Your task to perform on an android device: install app "Messenger Lite" Image 0: 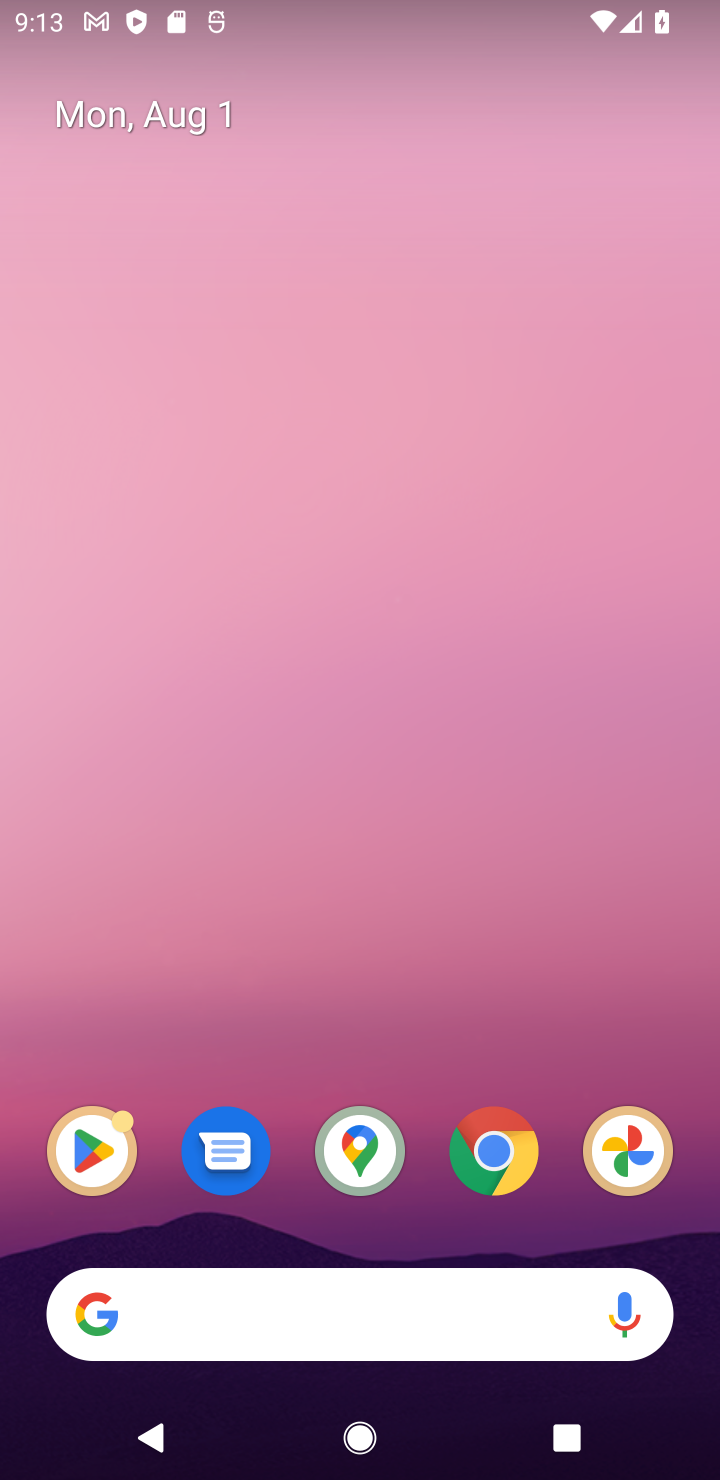
Step 0: drag from (383, 1386) to (302, 747)
Your task to perform on an android device: install app "Messenger Lite" Image 1: 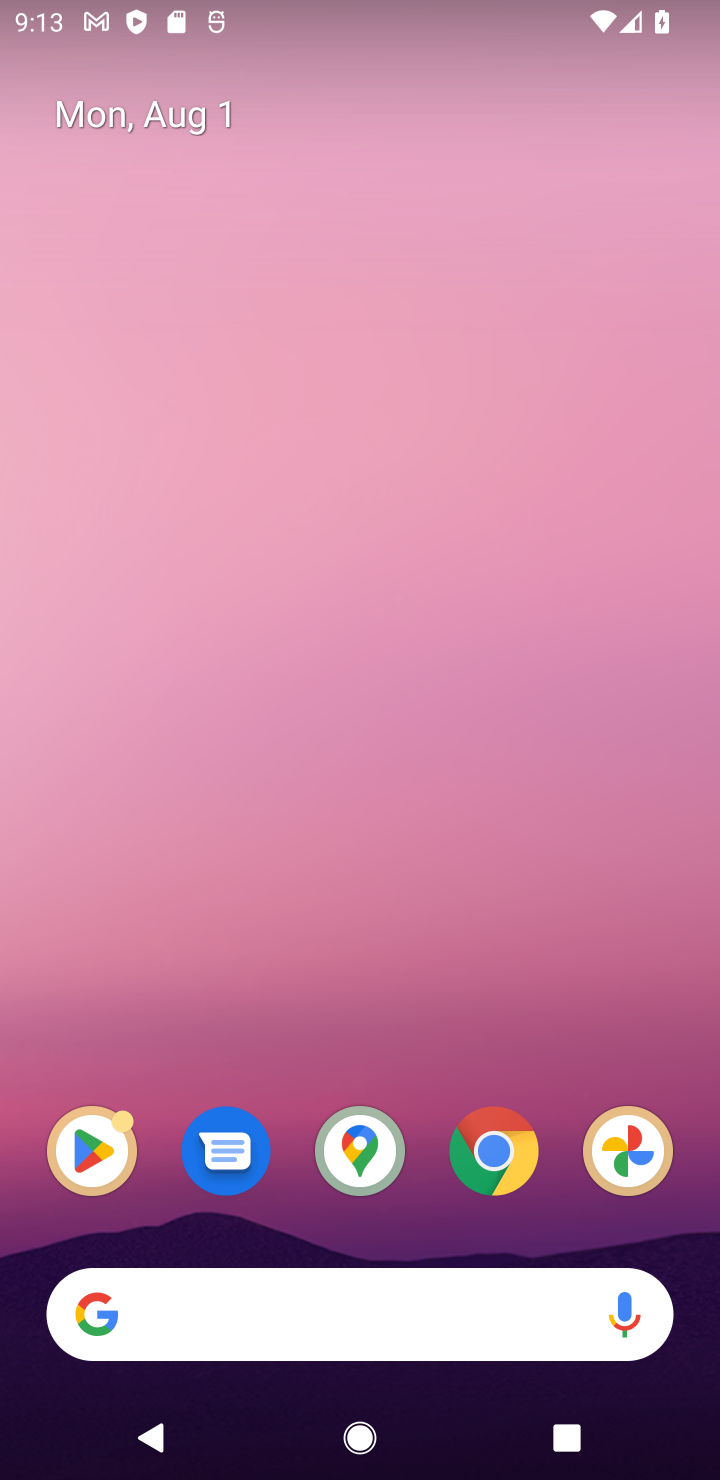
Step 1: drag from (469, 1091) to (385, 683)
Your task to perform on an android device: install app "Messenger Lite" Image 2: 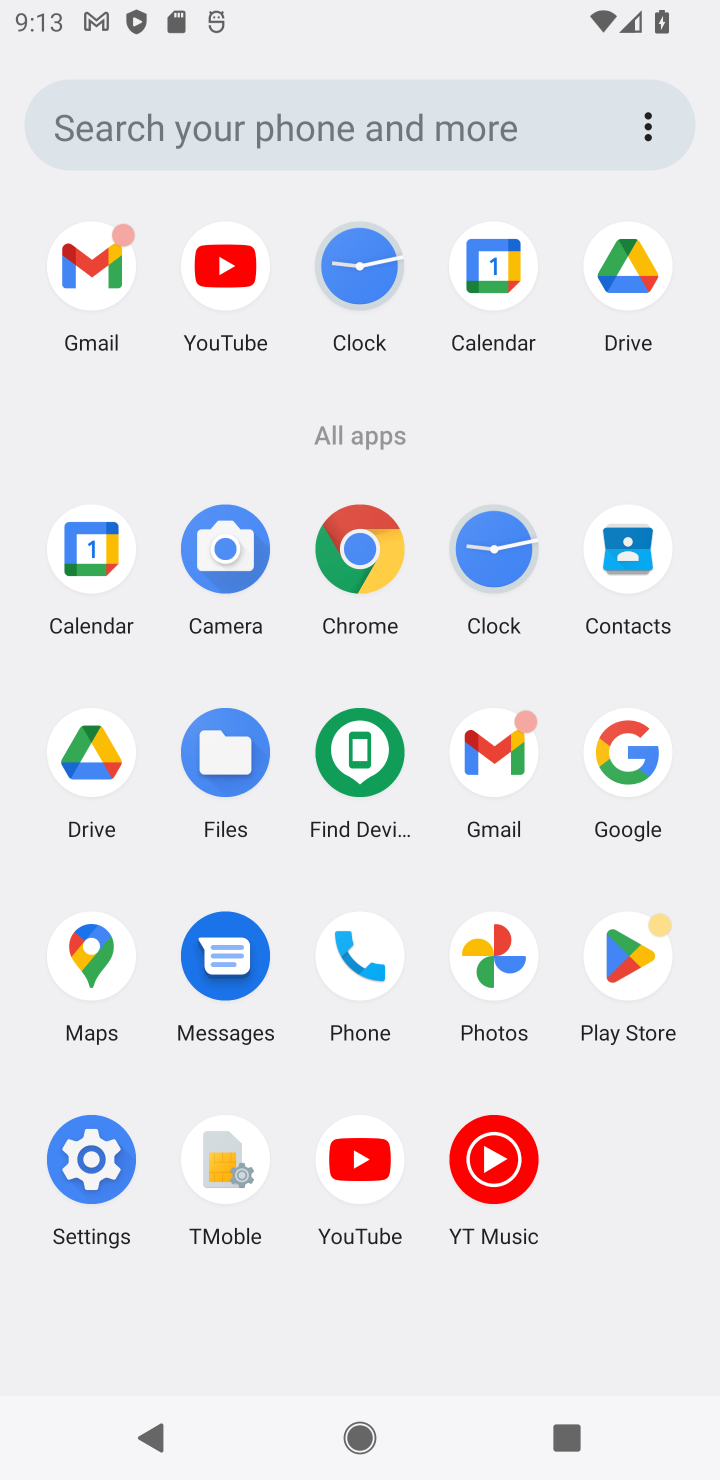
Step 2: click (627, 963)
Your task to perform on an android device: install app "Messenger Lite" Image 3: 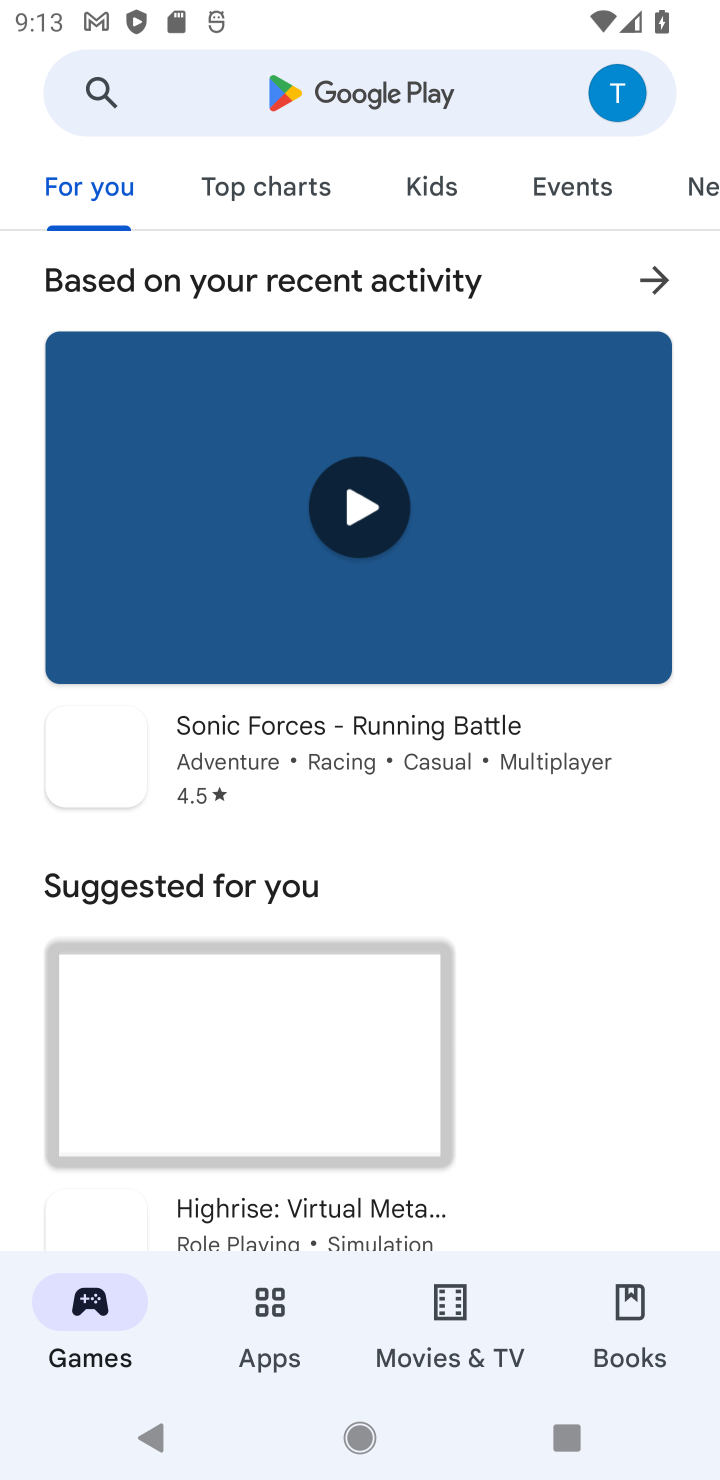
Step 3: click (308, 92)
Your task to perform on an android device: install app "Messenger Lite" Image 4: 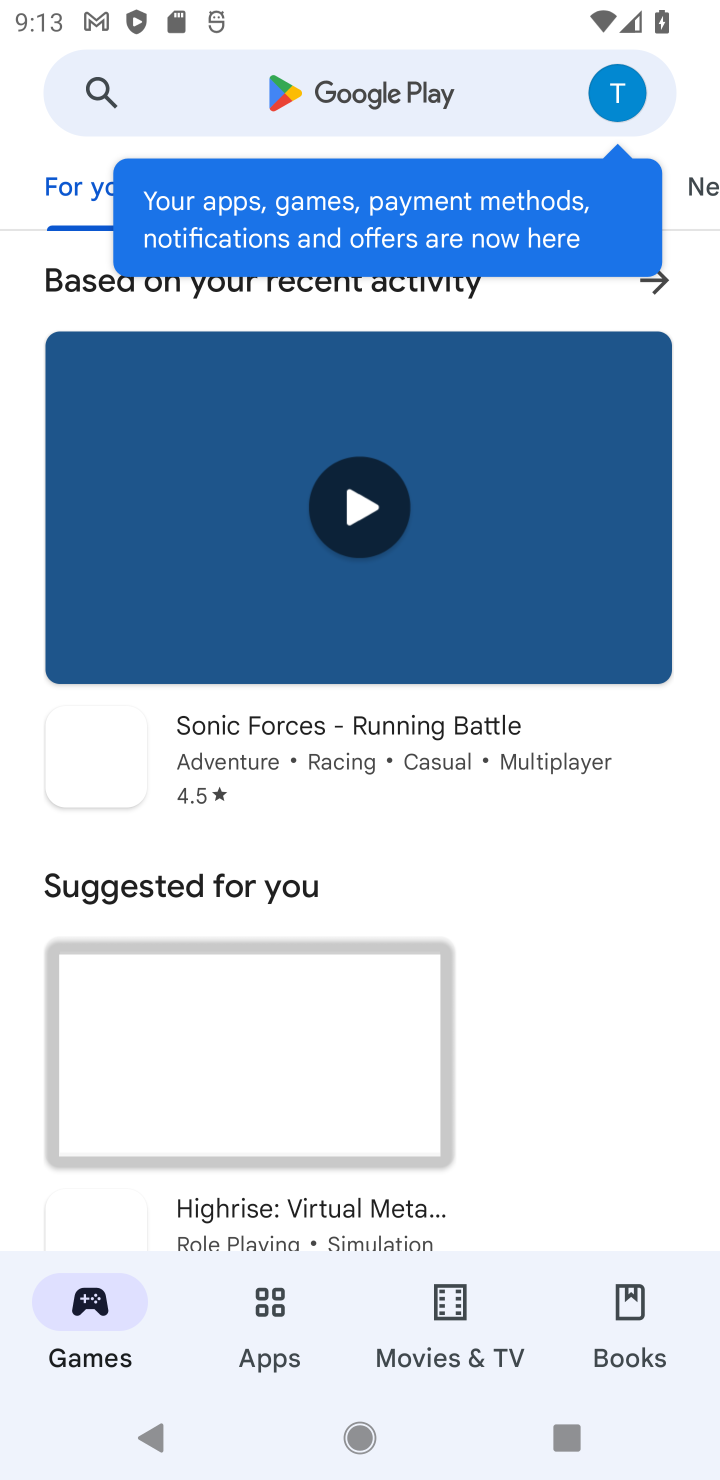
Step 4: click (336, 88)
Your task to perform on an android device: install app "Messenger Lite" Image 5: 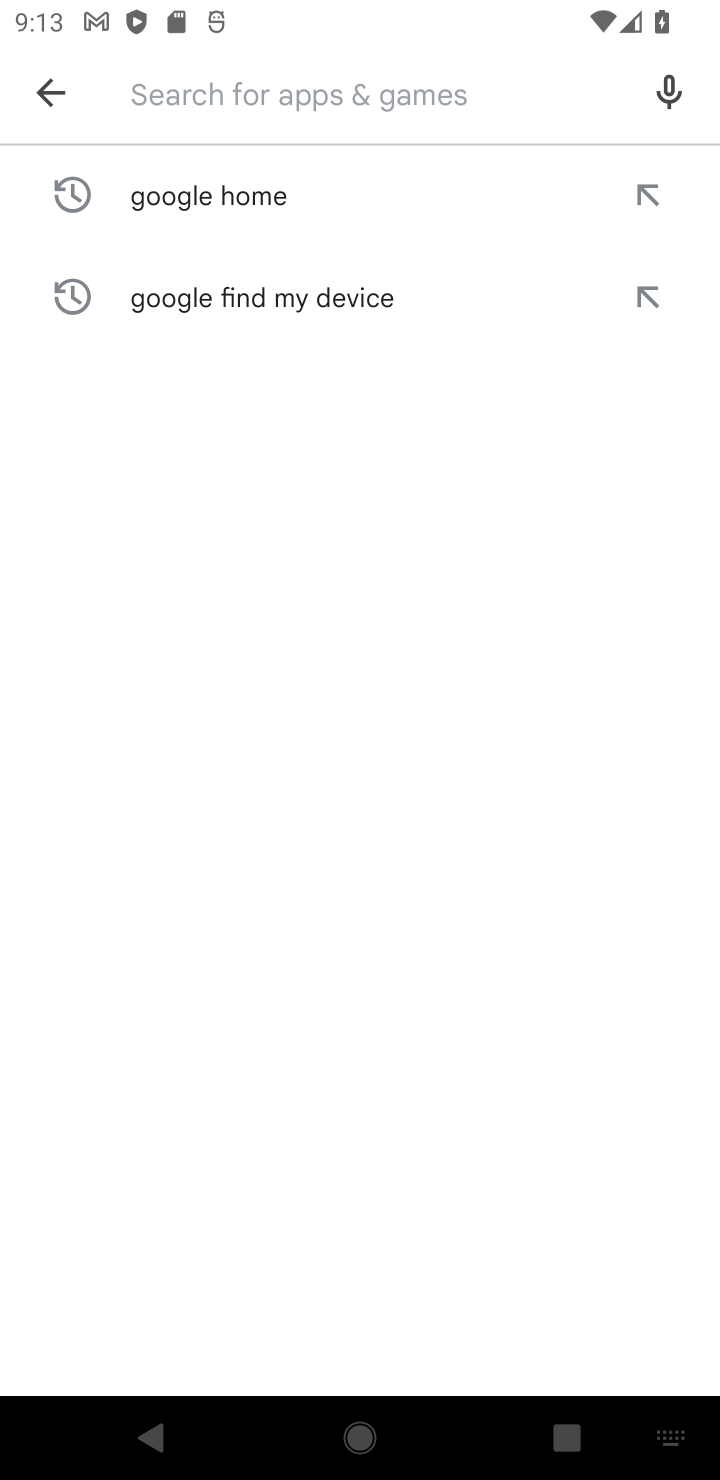
Step 5: type "messenger lite"
Your task to perform on an android device: install app "Messenger Lite" Image 6: 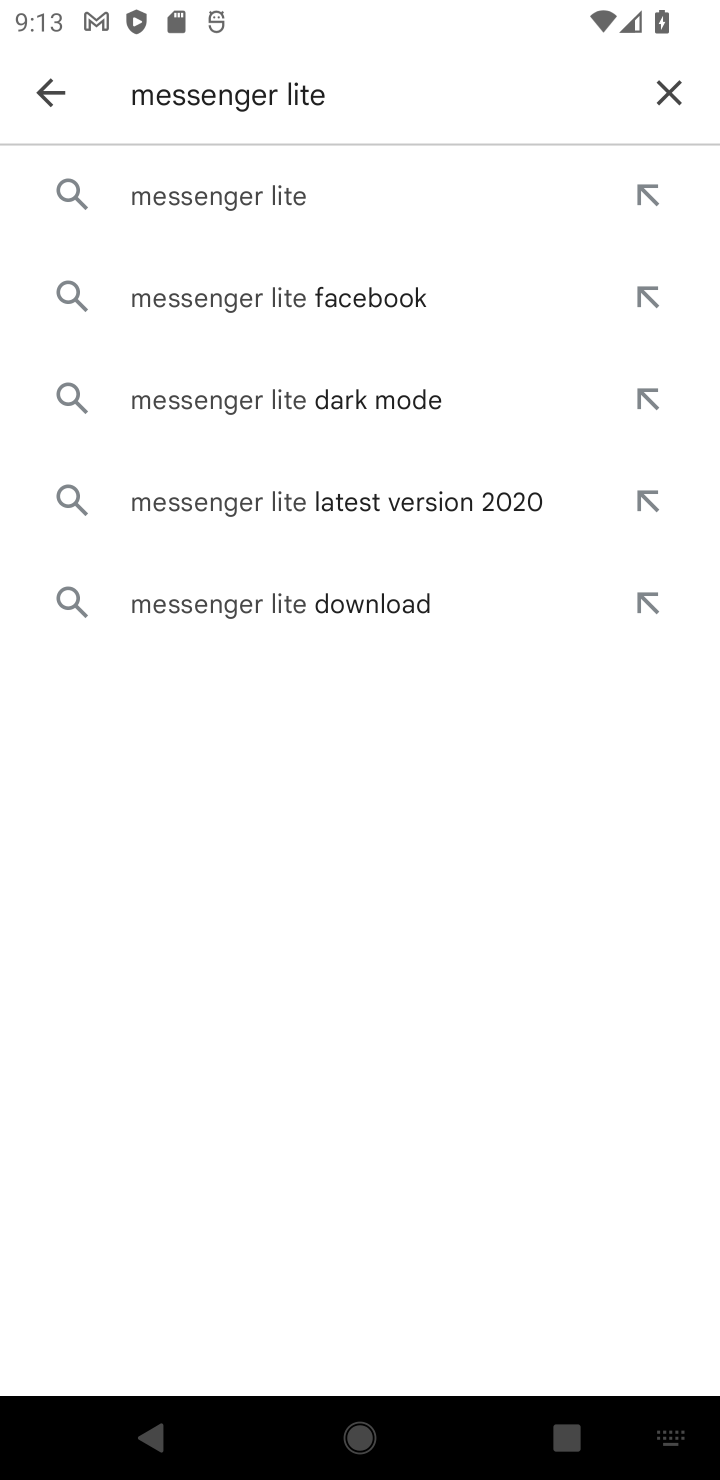
Step 6: click (265, 210)
Your task to perform on an android device: install app "Messenger Lite" Image 7: 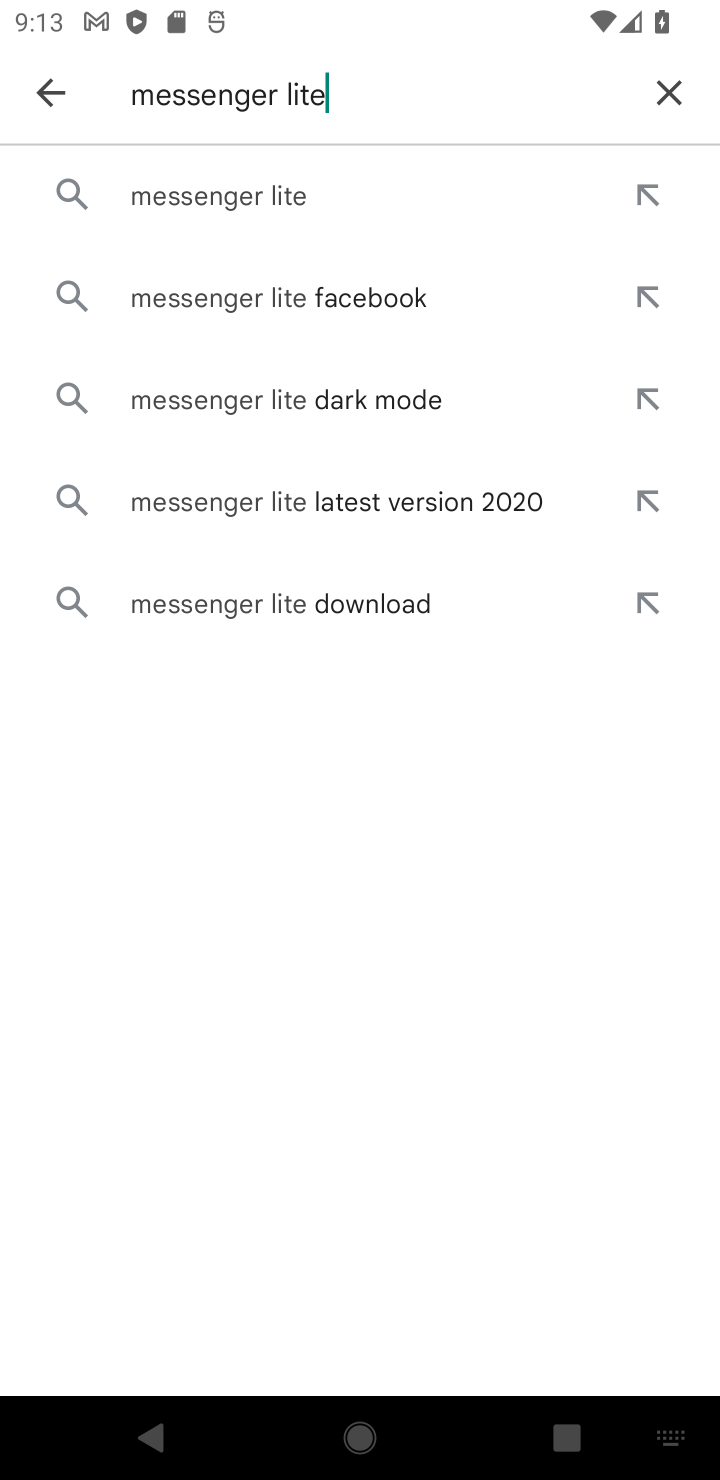
Step 7: click (260, 195)
Your task to perform on an android device: install app "Messenger Lite" Image 8: 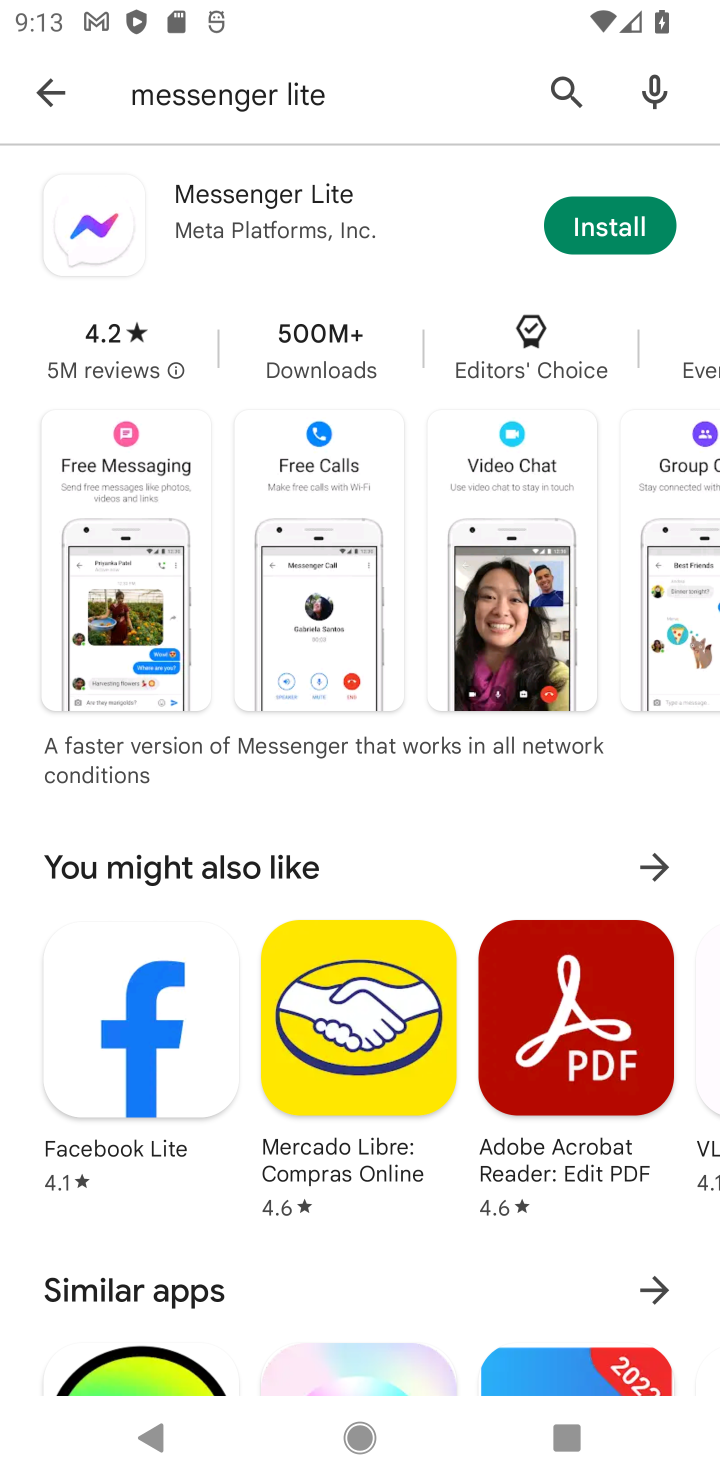
Step 8: click (580, 220)
Your task to perform on an android device: install app "Messenger Lite" Image 9: 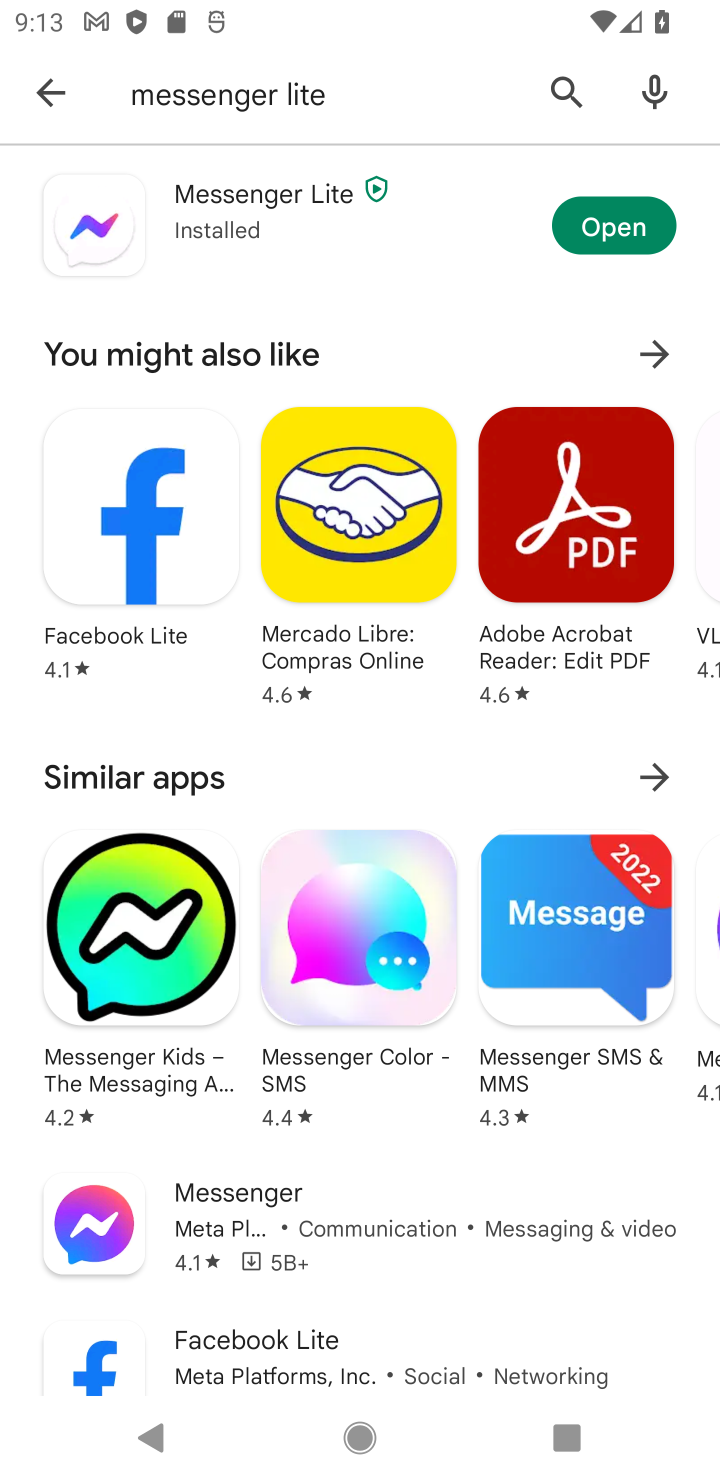
Step 9: click (617, 243)
Your task to perform on an android device: install app "Messenger Lite" Image 10: 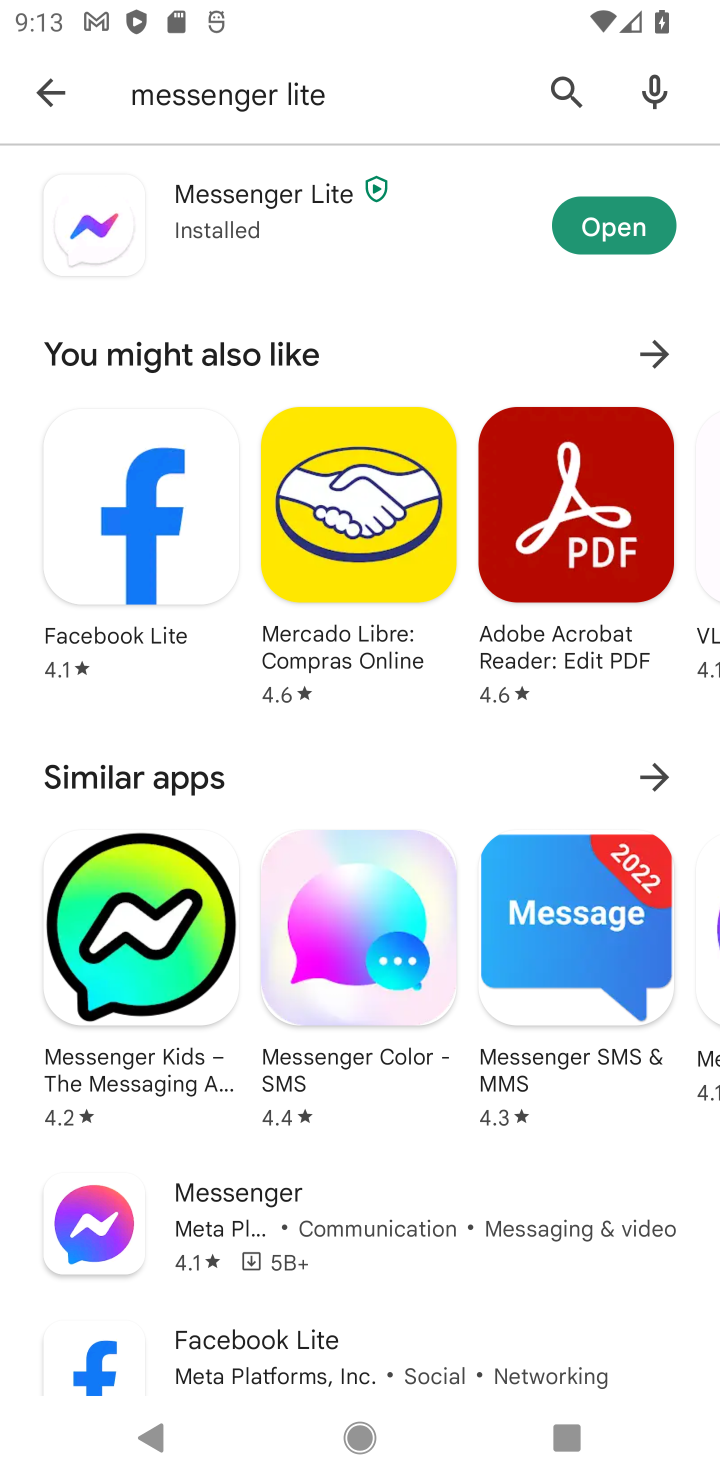
Step 10: click (617, 243)
Your task to perform on an android device: install app "Messenger Lite" Image 11: 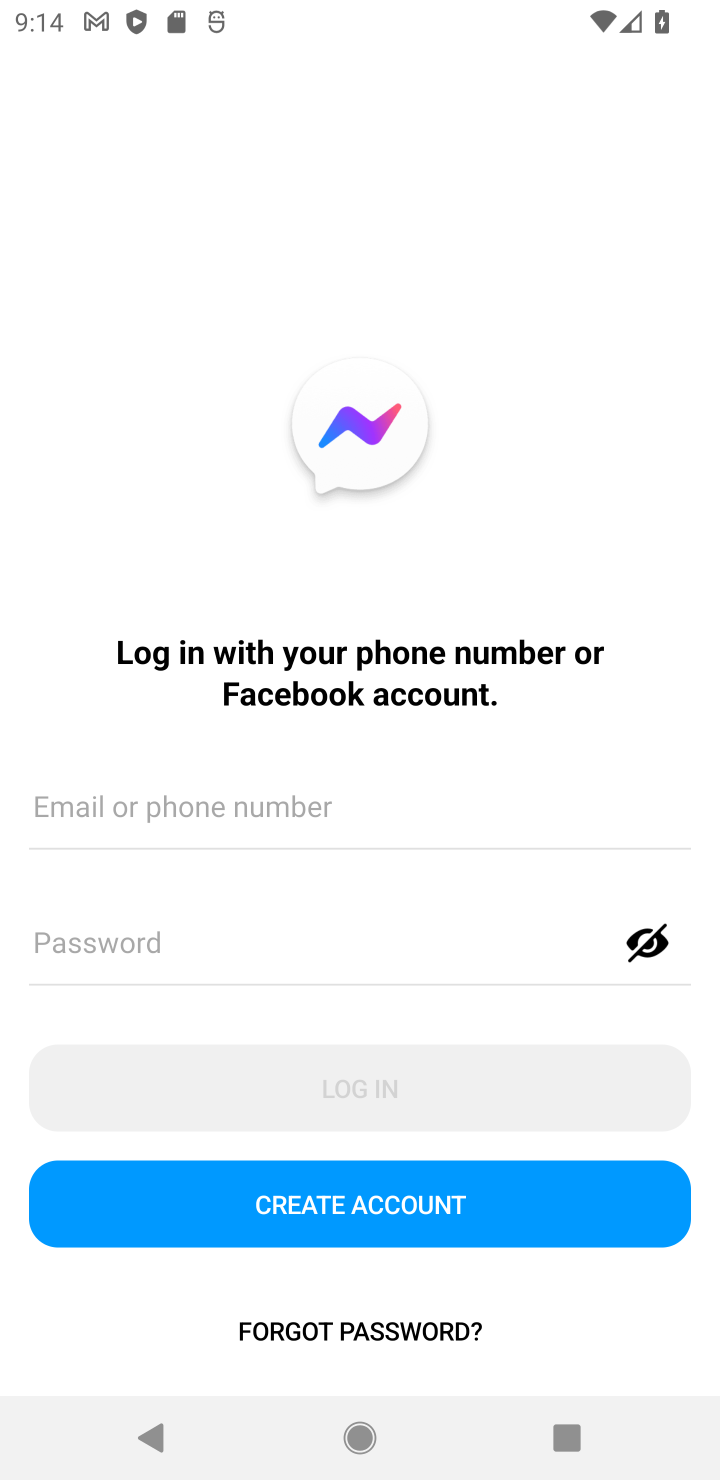
Step 11: task complete